Your task to perform on an android device: open app "Facebook" Image 0: 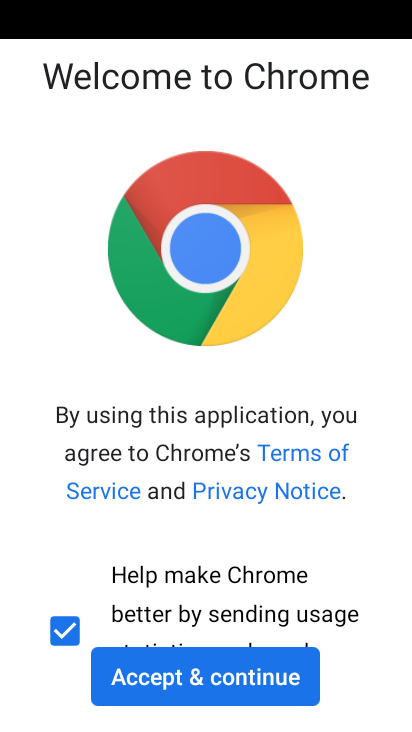
Step 0: press back button
Your task to perform on an android device: open app "Facebook" Image 1: 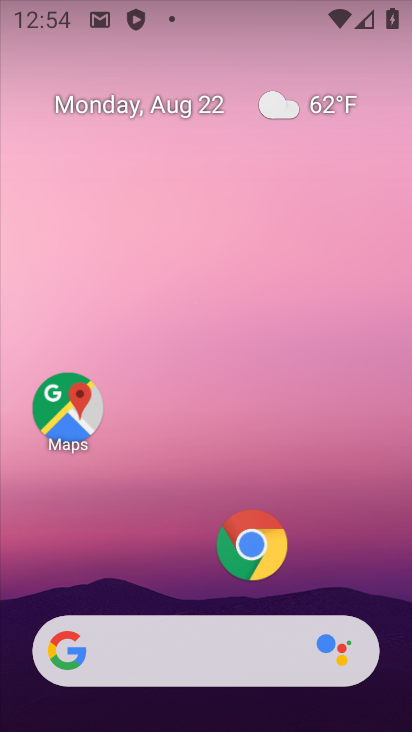
Step 1: drag from (136, 552) to (258, 1)
Your task to perform on an android device: open app "Facebook" Image 2: 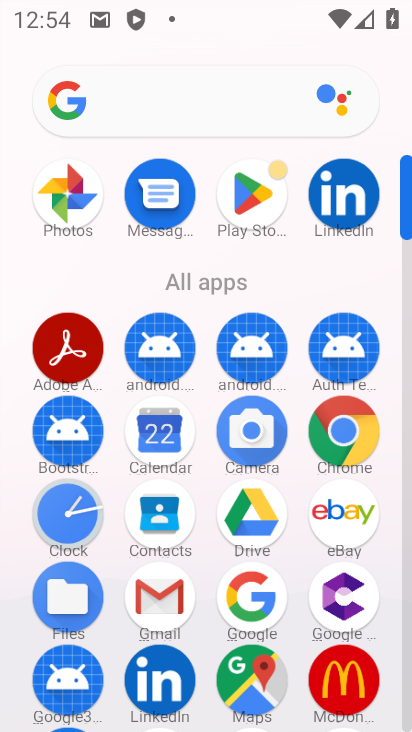
Step 2: click (240, 211)
Your task to perform on an android device: open app "Facebook" Image 3: 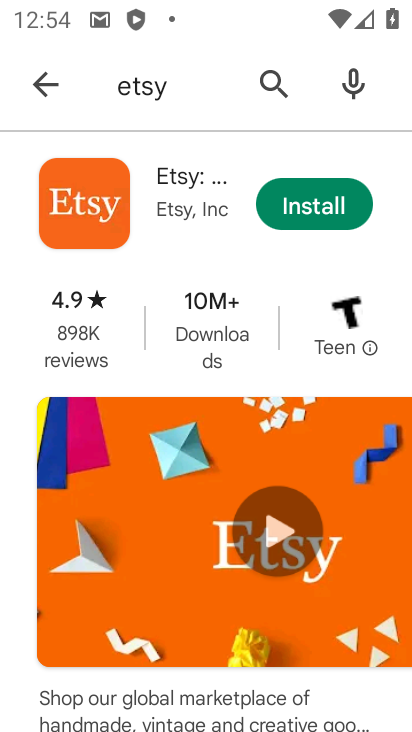
Step 3: click (272, 74)
Your task to perform on an android device: open app "Facebook" Image 4: 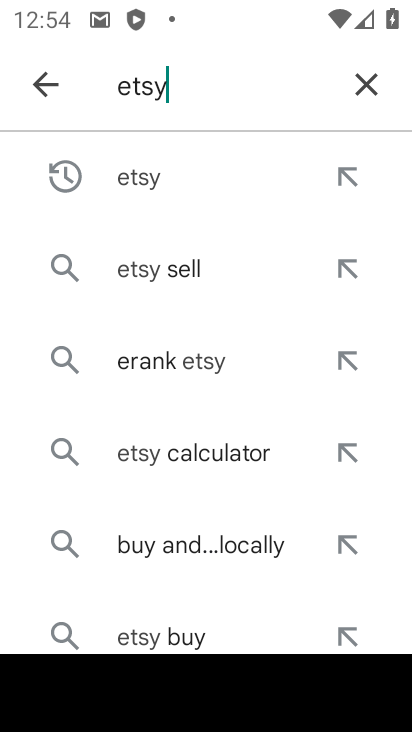
Step 4: click (373, 84)
Your task to perform on an android device: open app "Facebook" Image 5: 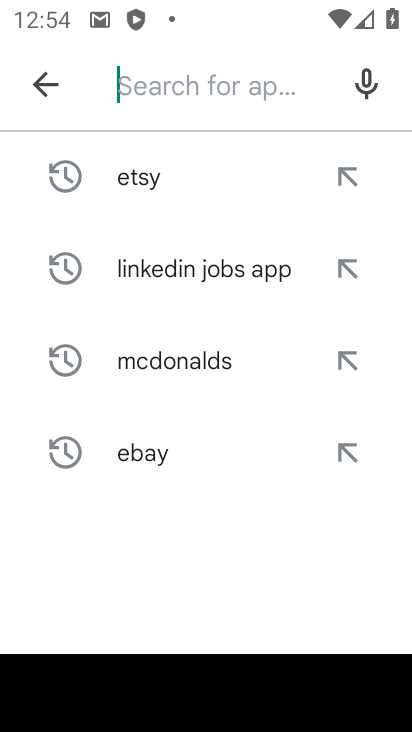
Step 5: click (160, 81)
Your task to perform on an android device: open app "Facebook" Image 6: 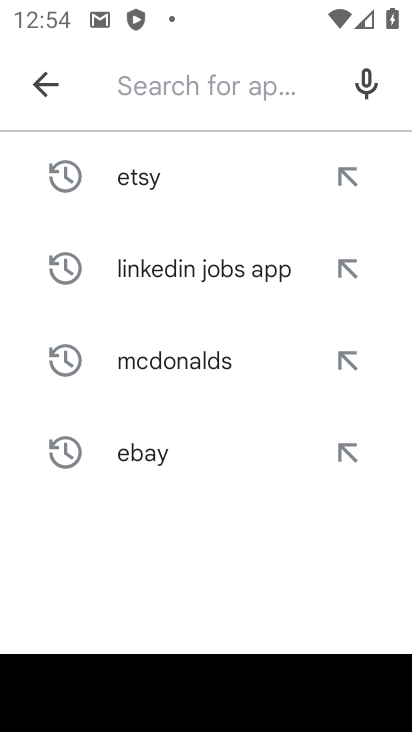
Step 6: type "Facebook"
Your task to perform on an android device: open app "Facebook" Image 7: 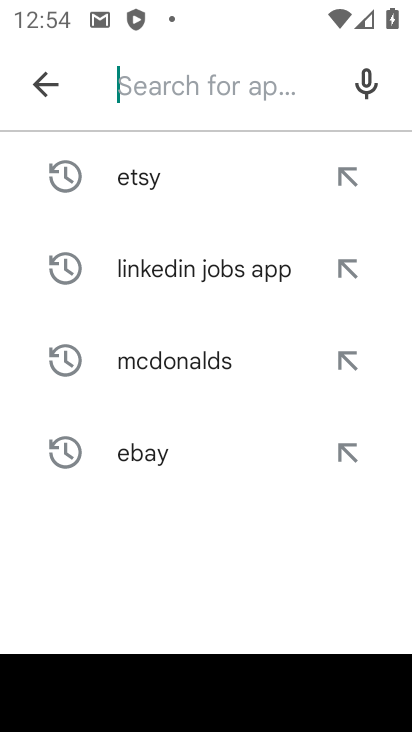
Step 7: click (148, 602)
Your task to perform on an android device: open app "Facebook" Image 8: 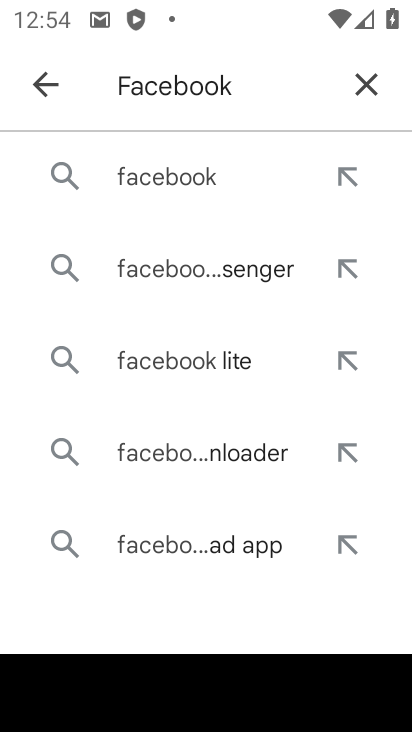
Step 8: click (210, 168)
Your task to perform on an android device: open app "Facebook" Image 9: 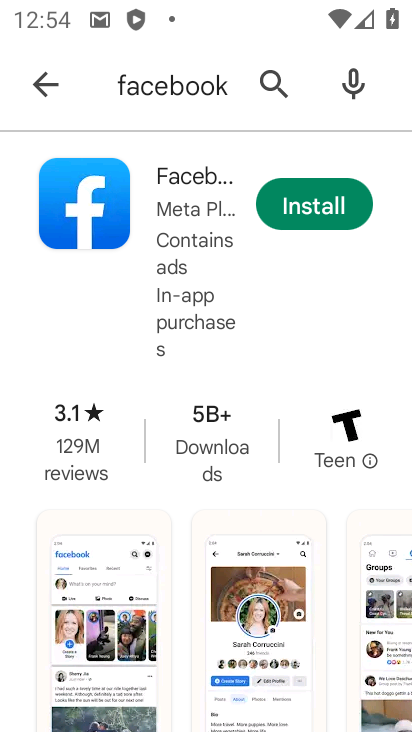
Step 9: task complete